Your task to perform on an android device: Go to Wikipedia Image 0: 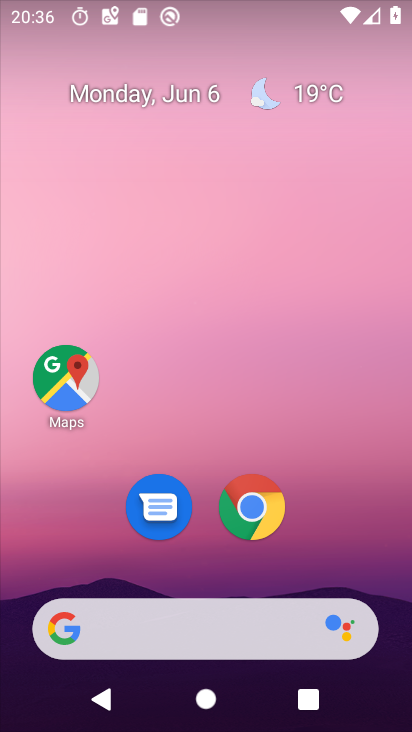
Step 0: press home button
Your task to perform on an android device: Go to Wikipedia Image 1: 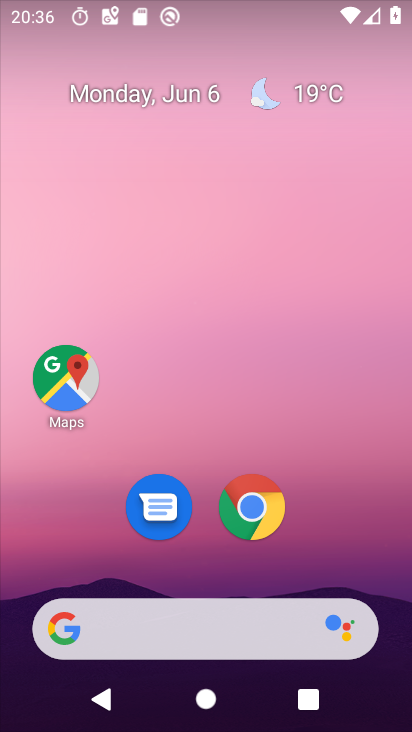
Step 1: drag from (382, 583) to (382, 124)
Your task to perform on an android device: Go to Wikipedia Image 2: 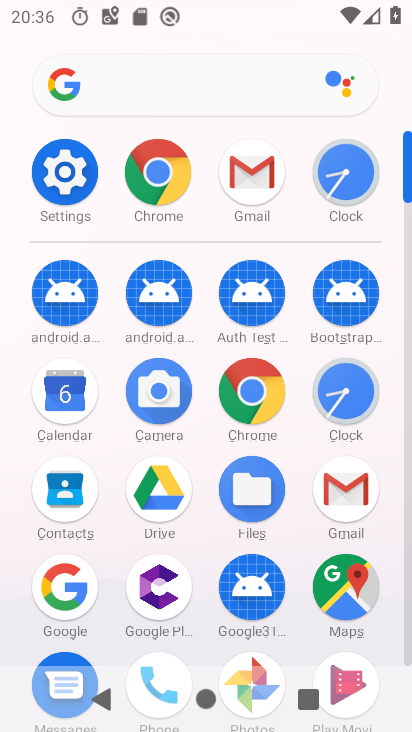
Step 2: click (161, 173)
Your task to perform on an android device: Go to Wikipedia Image 3: 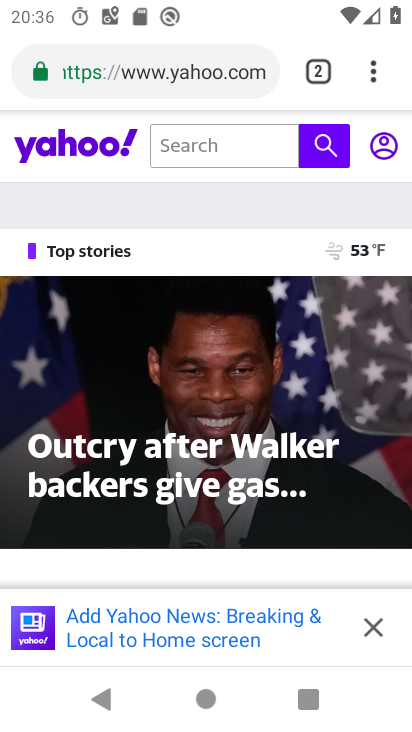
Step 3: click (369, 77)
Your task to perform on an android device: Go to Wikipedia Image 4: 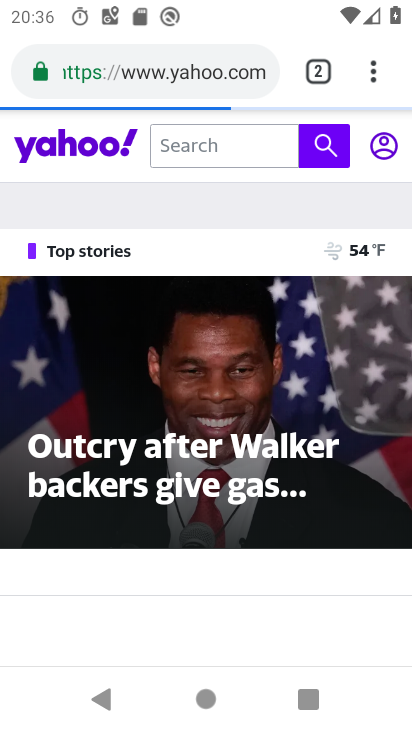
Step 4: drag from (369, 77) to (100, 155)
Your task to perform on an android device: Go to Wikipedia Image 5: 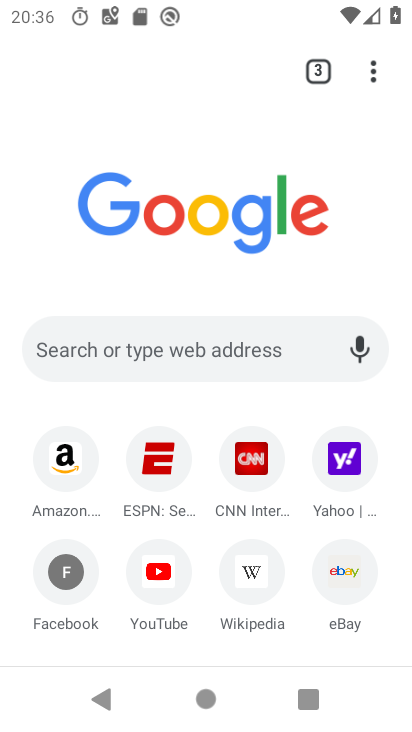
Step 5: drag from (176, 478) to (153, 291)
Your task to perform on an android device: Go to Wikipedia Image 6: 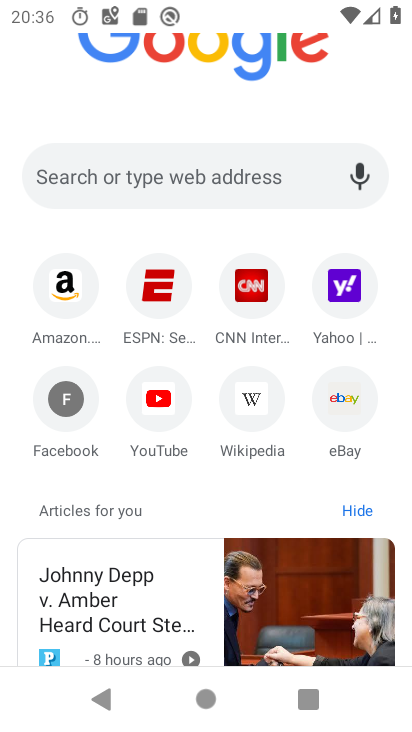
Step 6: click (257, 400)
Your task to perform on an android device: Go to Wikipedia Image 7: 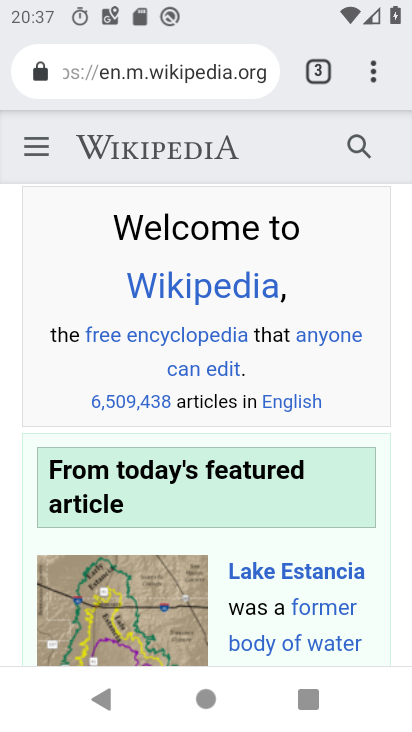
Step 7: task complete